Your task to perform on an android device: toggle translation in the chrome app Image 0: 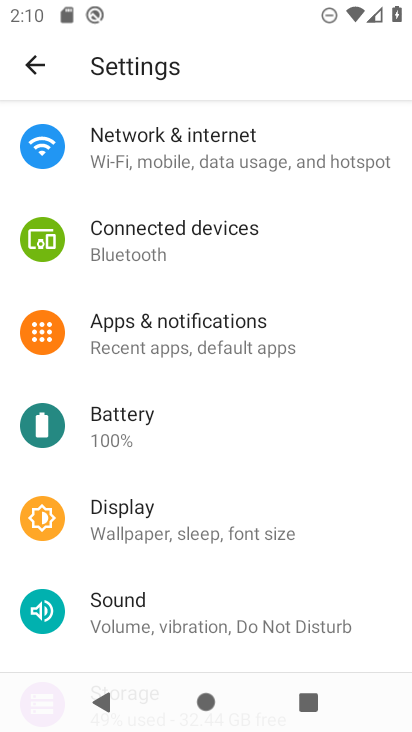
Step 0: press home button
Your task to perform on an android device: toggle translation in the chrome app Image 1: 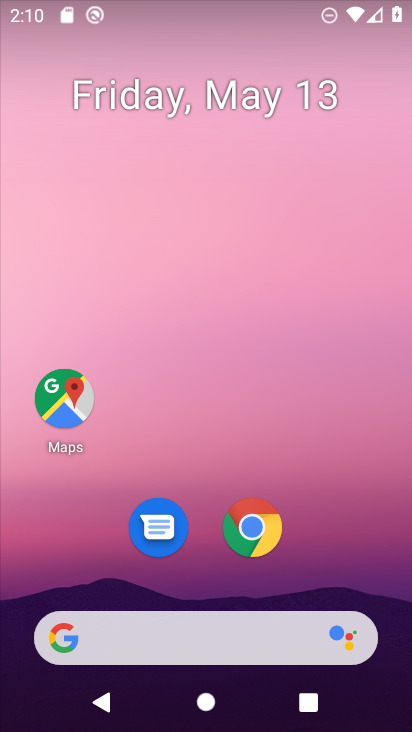
Step 1: drag from (355, 529) to (334, 142)
Your task to perform on an android device: toggle translation in the chrome app Image 2: 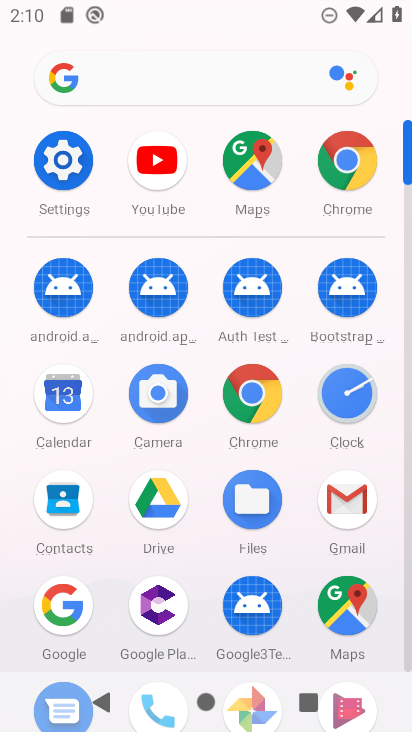
Step 2: click (273, 394)
Your task to perform on an android device: toggle translation in the chrome app Image 3: 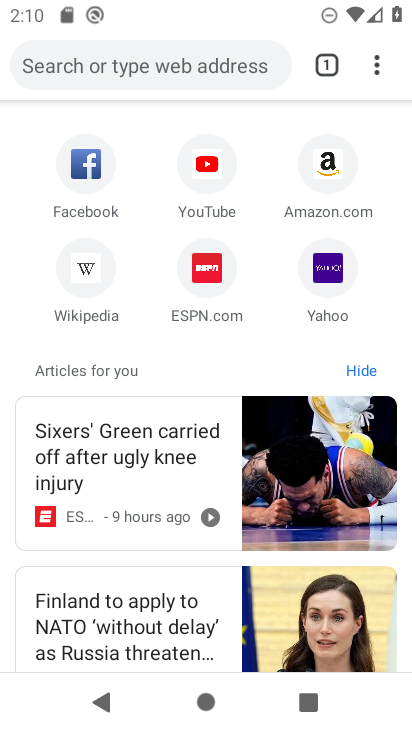
Step 3: drag from (380, 82) to (203, 556)
Your task to perform on an android device: toggle translation in the chrome app Image 4: 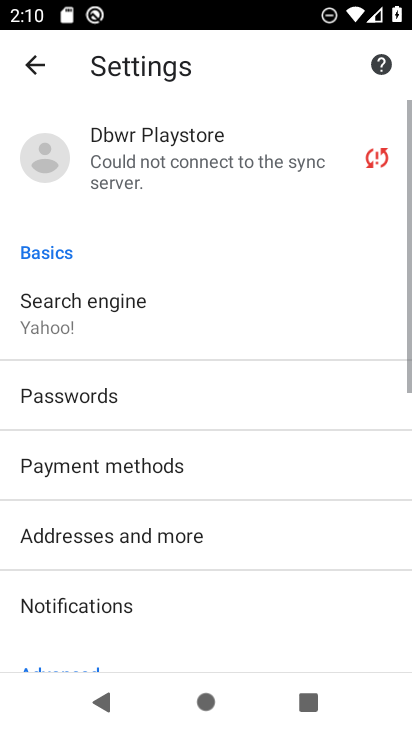
Step 4: drag from (201, 617) to (232, 320)
Your task to perform on an android device: toggle translation in the chrome app Image 5: 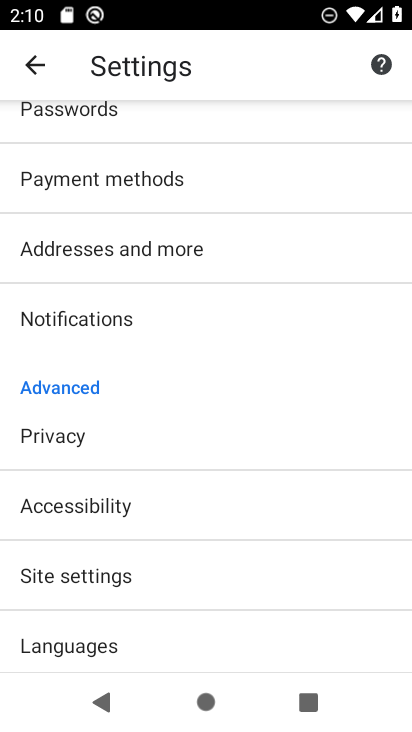
Step 5: drag from (212, 635) to (278, 352)
Your task to perform on an android device: toggle translation in the chrome app Image 6: 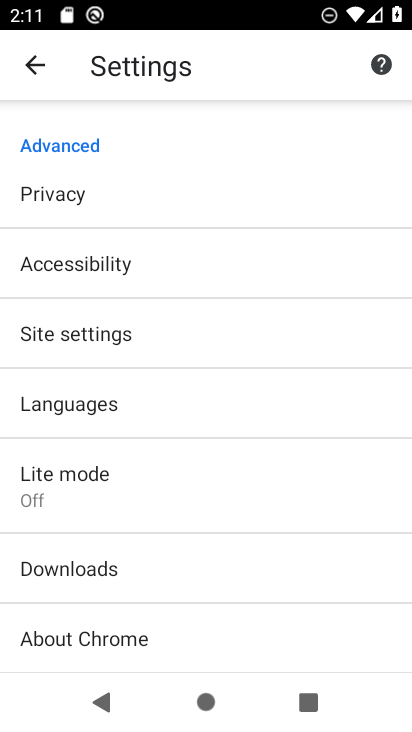
Step 6: drag from (209, 654) to (256, 388)
Your task to perform on an android device: toggle translation in the chrome app Image 7: 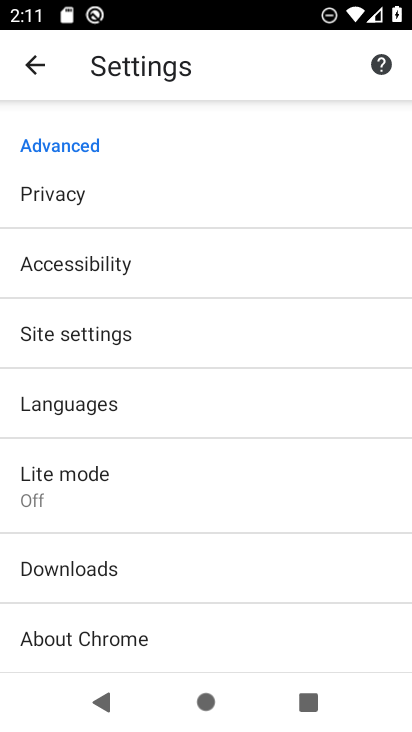
Step 7: click (136, 403)
Your task to perform on an android device: toggle translation in the chrome app Image 8: 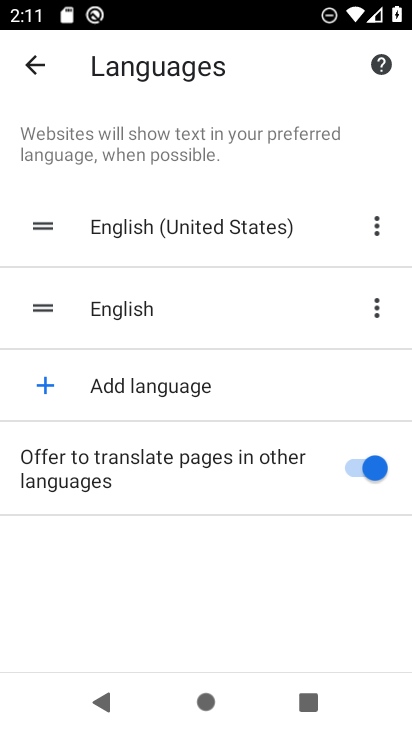
Step 8: click (368, 466)
Your task to perform on an android device: toggle translation in the chrome app Image 9: 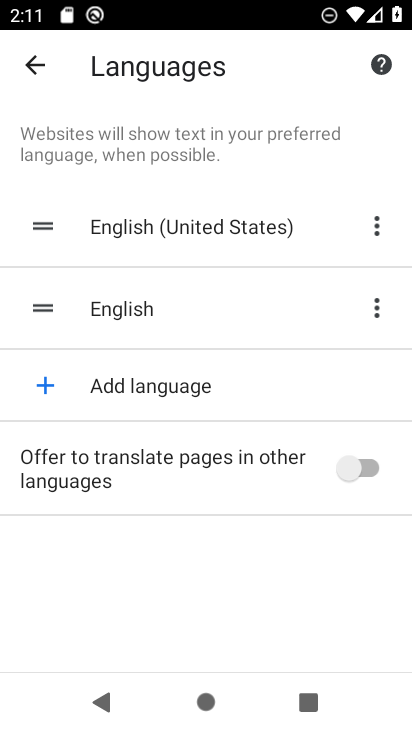
Step 9: task complete